Your task to perform on an android device: turn off javascript in the chrome app Image 0: 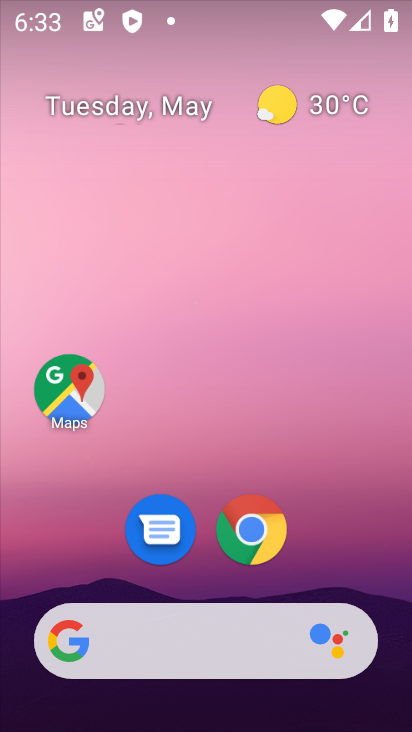
Step 0: drag from (393, 624) to (290, 35)
Your task to perform on an android device: turn off javascript in the chrome app Image 1: 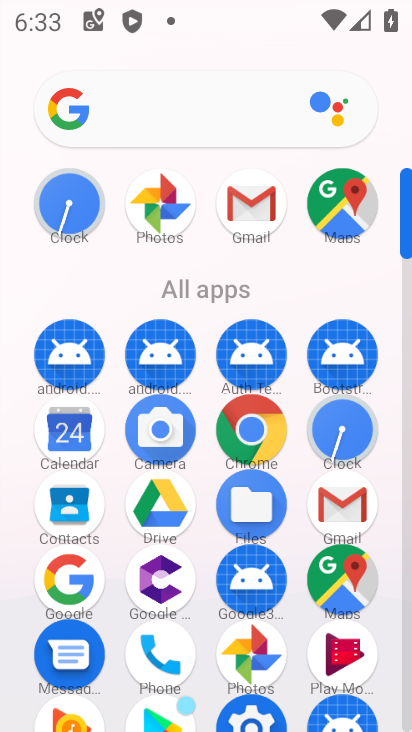
Step 1: click (247, 433)
Your task to perform on an android device: turn off javascript in the chrome app Image 2: 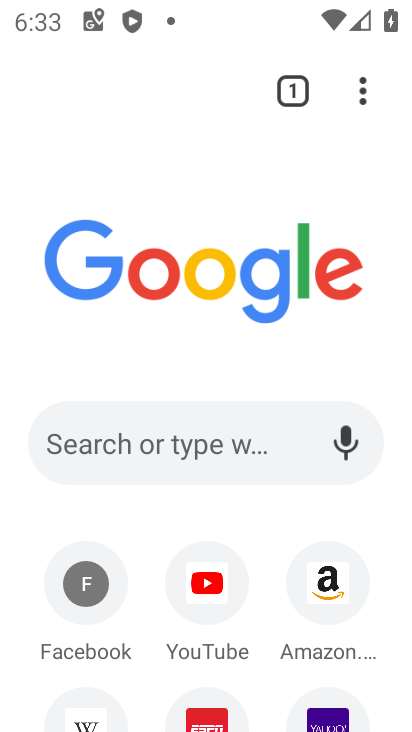
Step 2: click (375, 84)
Your task to perform on an android device: turn off javascript in the chrome app Image 3: 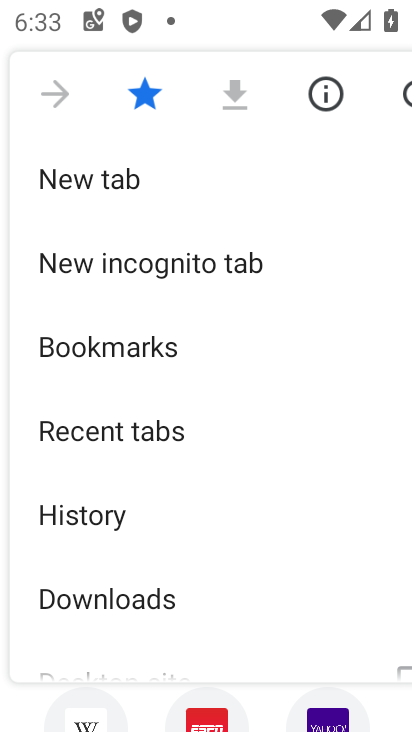
Step 3: drag from (112, 630) to (154, 126)
Your task to perform on an android device: turn off javascript in the chrome app Image 4: 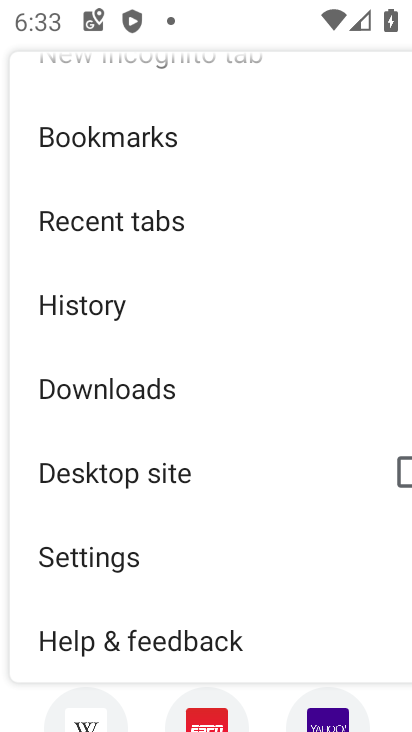
Step 4: click (92, 595)
Your task to perform on an android device: turn off javascript in the chrome app Image 5: 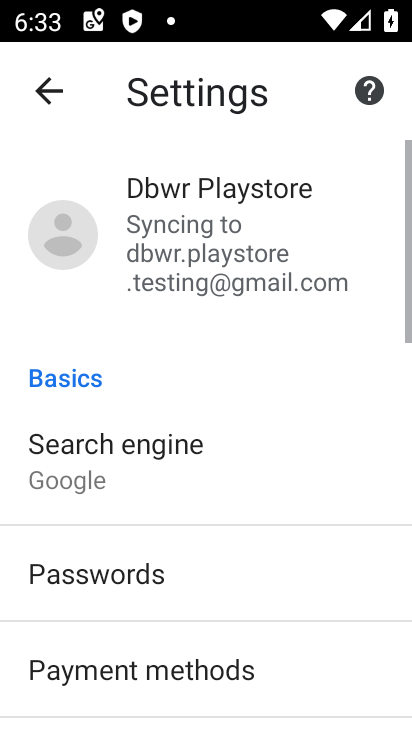
Step 5: drag from (93, 588) to (186, 131)
Your task to perform on an android device: turn off javascript in the chrome app Image 6: 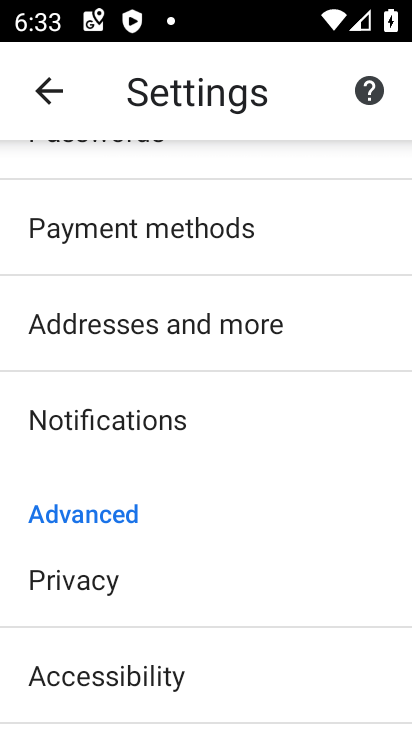
Step 6: drag from (156, 631) to (165, 176)
Your task to perform on an android device: turn off javascript in the chrome app Image 7: 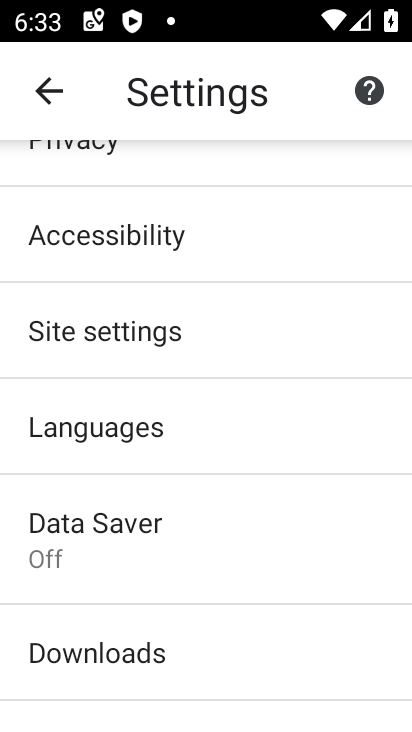
Step 7: click (178, 327)
Your task to perform on an android device: turn off javascript in the chrome app Image 8: 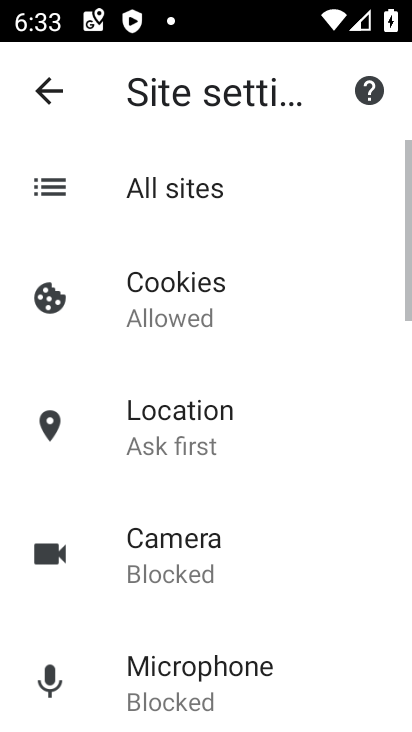
Step 8: drag from (144, 708) to (252, 159)
Your task to perform on an android device: turn off javascript in the chrome app Image 9: 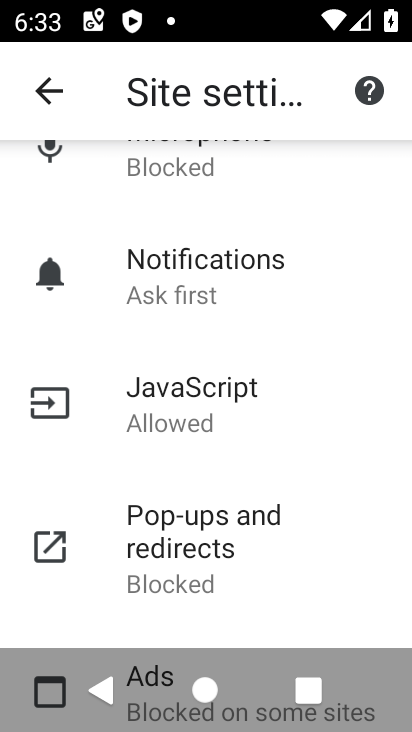
Step 9: click (219, 413)
Your task to perform on an android device: turn off javascript in the chrome app Image 10: 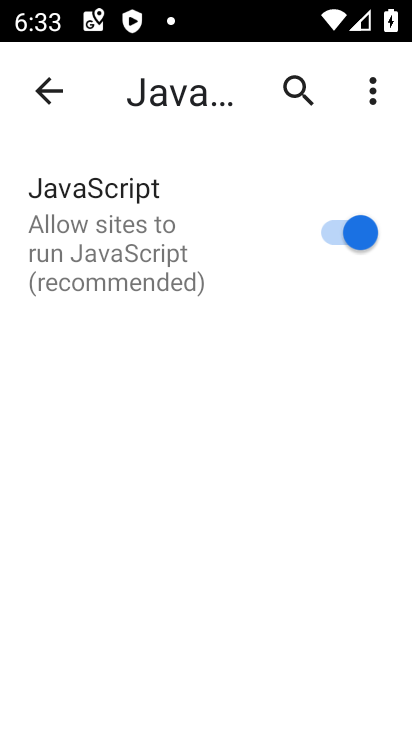
Step 10: click (308, 242)
Your task to perform on an android device: turn off javascript in the chrome app Image 11: 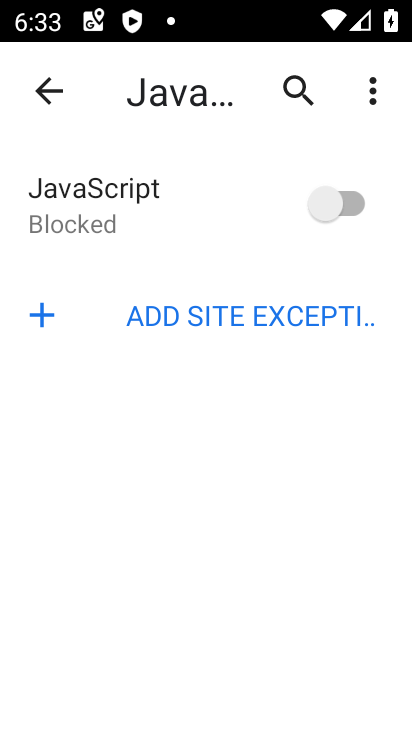
Step 11: task complete